Your task to perform on an android device: Open the phone app and click the voicemail tab. Image 0: 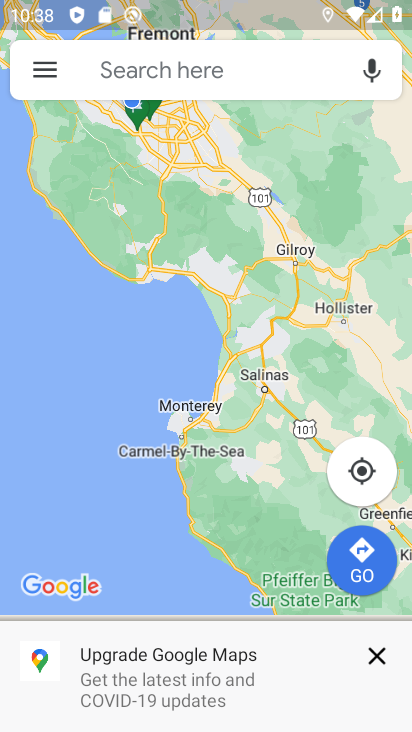
Step 0: press home button
Your task to perform on an android device: Open the phone app and click the voicemail tab. Image 1: 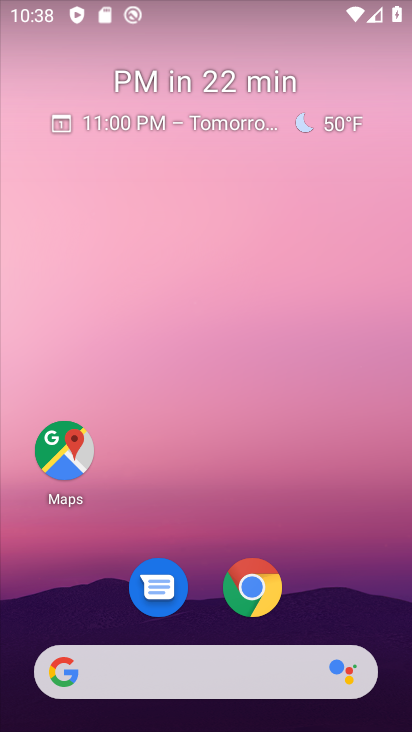
Step 1: drag from (198, 632) to (196, 29)
Your task to perform on an android device: Open the phone app and click the voicemail tab. Image 2: 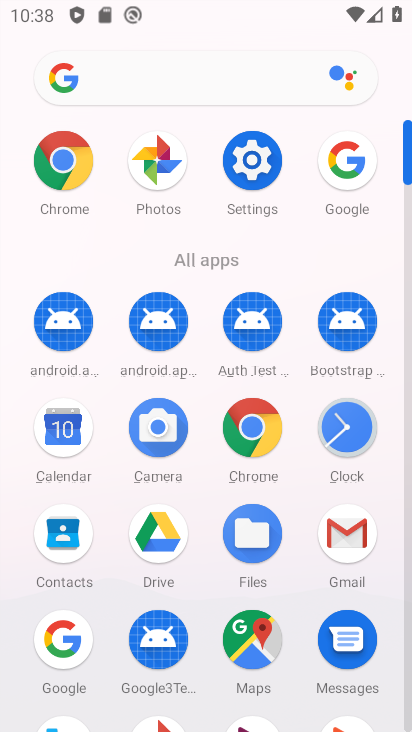
Step 2: drag from (202, 597) to (168, 18)
Your task to perform on an android device: Open the phone app and click the voicemail tab. Image 3: 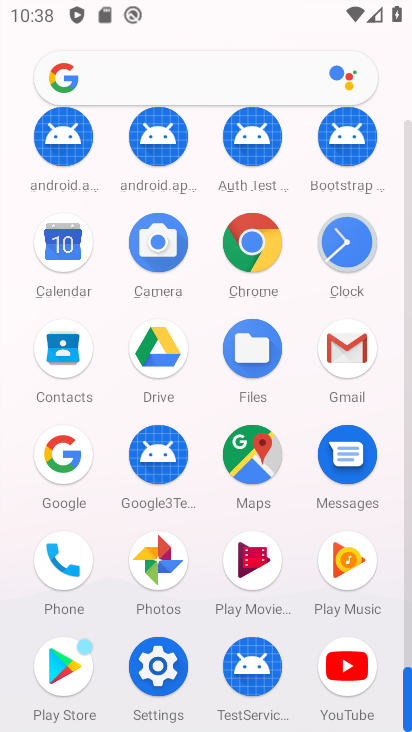
Step 3: click (76, 541)
Your task to perform on an android device: Open the phone app and click the voicemail tab. Image 4: 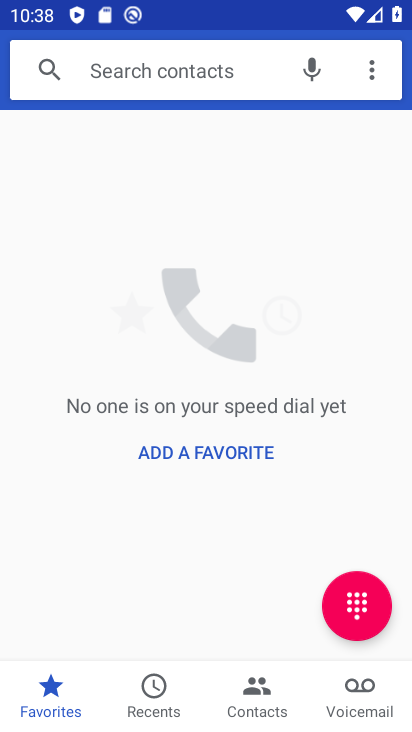
Step 4: click (355, 695)
Your task to perform on an android device: Open the phone app and click the voicemail tab. Image 5: 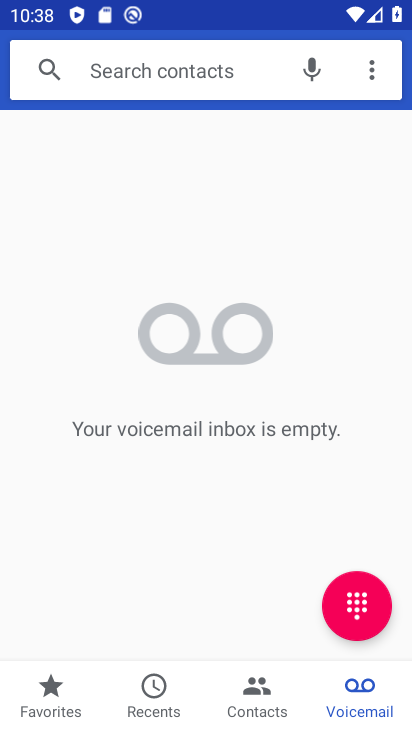
Step 5: task complete